Your task to perform on an android device: star an email in the gmail app Image 0: 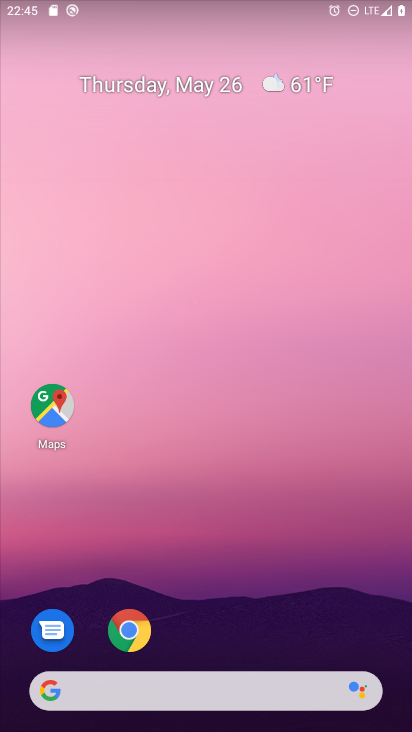
Step 0: drag from (170, 664) to (181, 33)
Your task to perform on an android device: star an email in the gmail app Image 1: 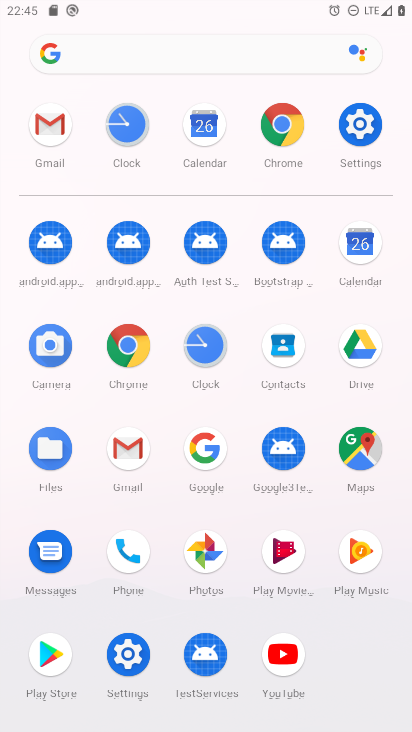
Step 1: click (115, 454)
Your task to perform on an android device: star an email in the gmail app Image 2: 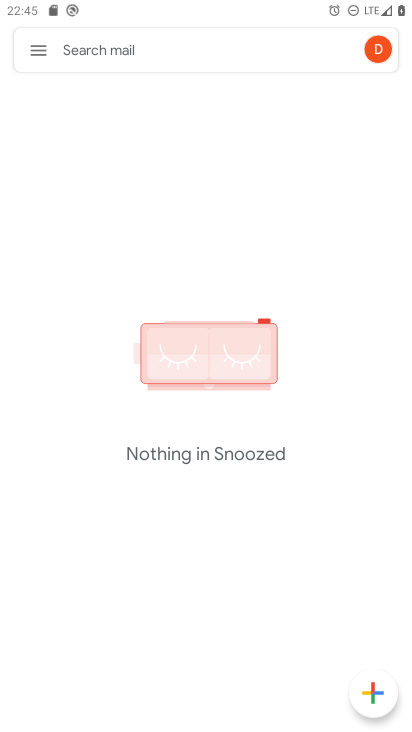
Step 2: click (34, 57)
Your task to perform on an android device: star an email in the gmail app Image 3: 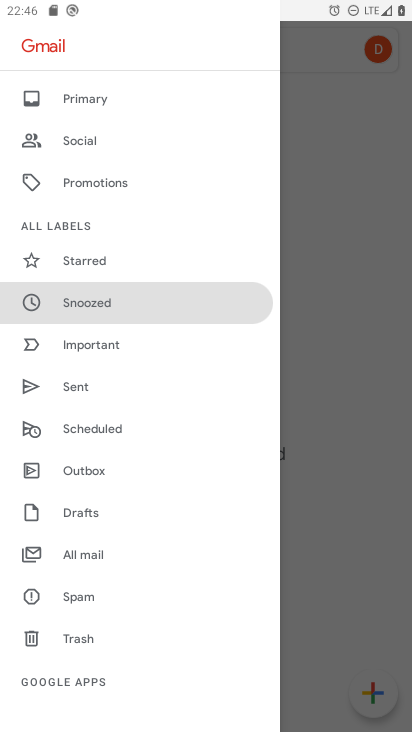
Step 3: drag from (137, 174) to (141, 239)
Your task to perform on an android device: star an email in the gmail app Image 4: 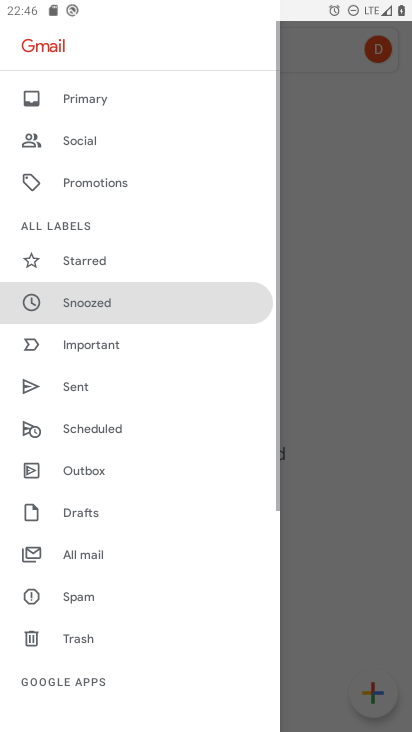
Step 4: click (103, 553)
Your task to perform on an android device: star an email in the gmail app Image 5: 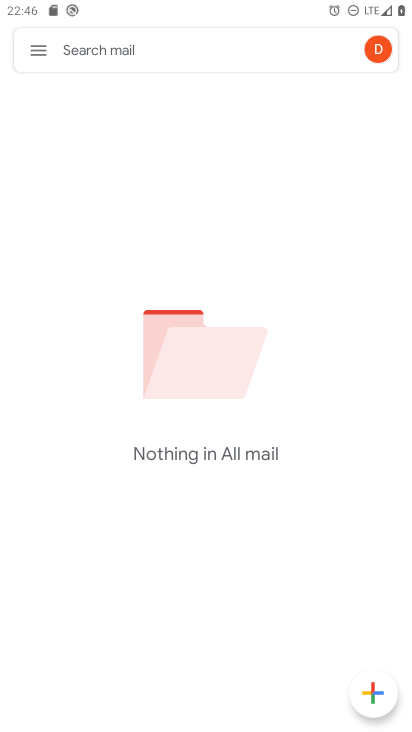
Step 5: task complete